Your task to perform on an android device: Go to Google Image 0: 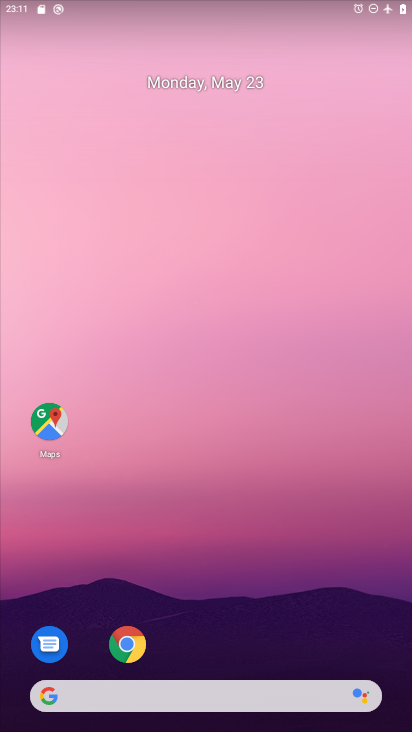
Step 0: drag from (165, 658) to (386, 30)
Your task to perform on an android device: Go to Google Image 1: 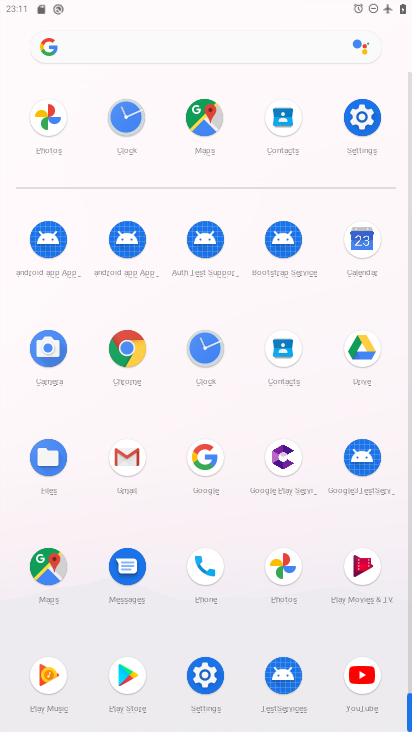
Step 1: click (214, 471)
Your task to perform on an android device: Go to Google Image 2: 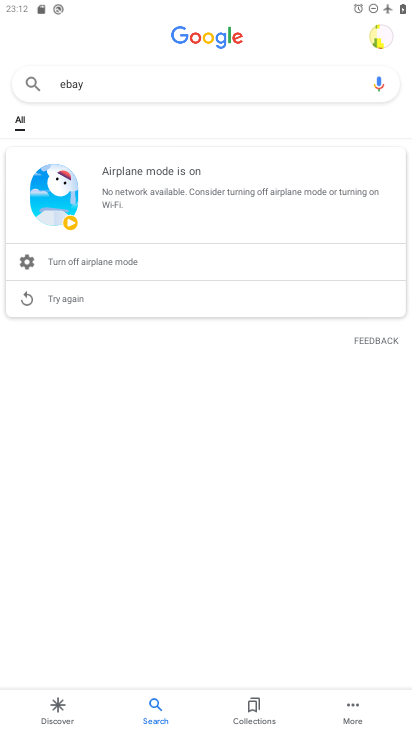
Step 2: task complete